Your task to perform on an android device: How much does a 3 bedroom apartment rent for in New York? Image 0: 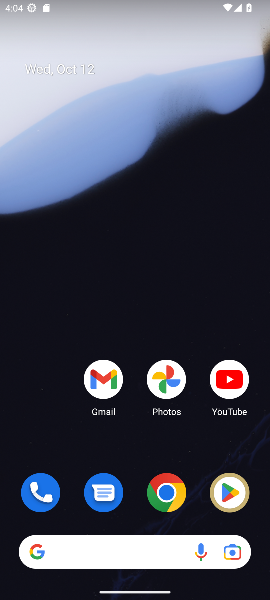
Step 0: click (165, 494)
Your task to perform on an android device: How much does a 3 bedroom apartment rent for in New York? Image 1: 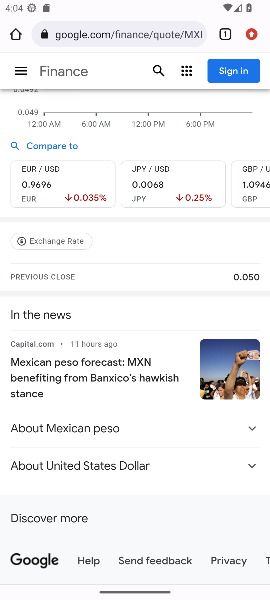
Step 1: click (100, 33)
Your task to perform on an android device: How much does a 3 bedroom apartment rent for in New York? Image 2: 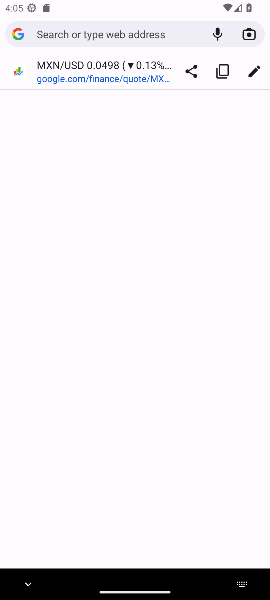
Step 2: type "3 bedroom apartment rent for in New York"
Your task to perform on an android device: How much does a 3 bedroom apartment rent for in New York? Image 3: 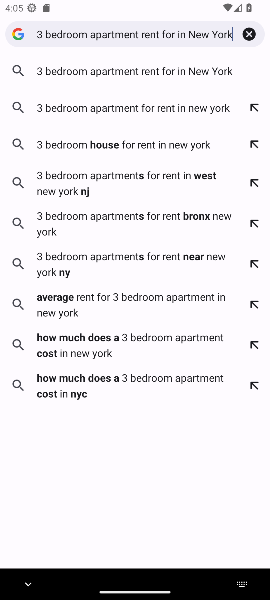
Step 3: click (104, 76)
Your task to perform on an android device: How much does a 3 bedroom apartment rent for in New York? Image 4: 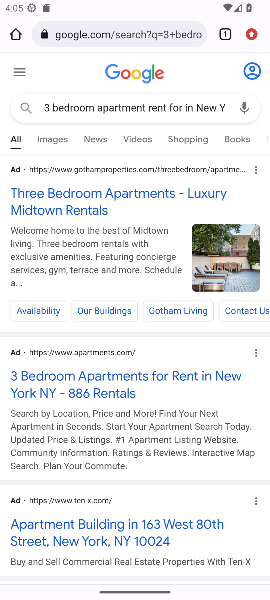
Step 4: drag from (133, 443) to (129, 115)
Your task to perform on an android device: How much does a 3 bedroom apartment rent for in New York? Image 5: 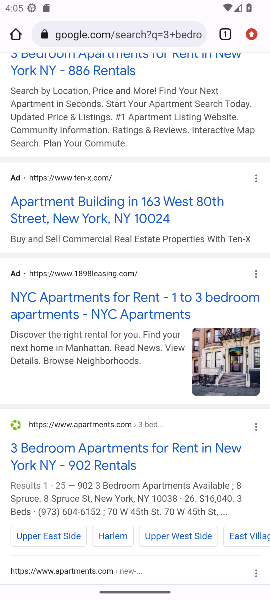
Step 5: drag from (104, 467) to (119, 252)
Your task to perform on an android device: How much does a 3 bedroom apartment rent for in New York? Image 6: 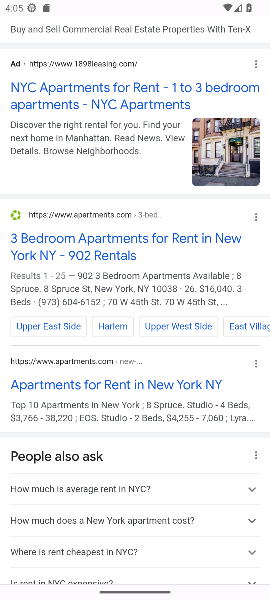
Step 6: click (108, 249)
Your task to perform on an android device: How much does a 3 bedroom apartment rent for in New York? Image 7: 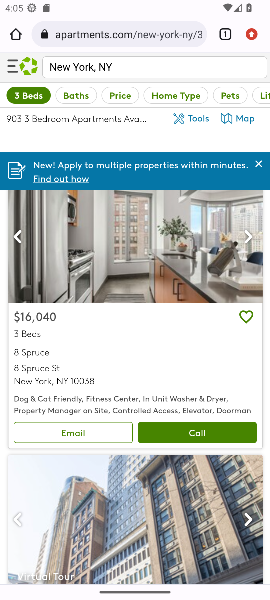
Step 7: task complete